Your task to perform on an android device: turn off sleep mode Image 0: 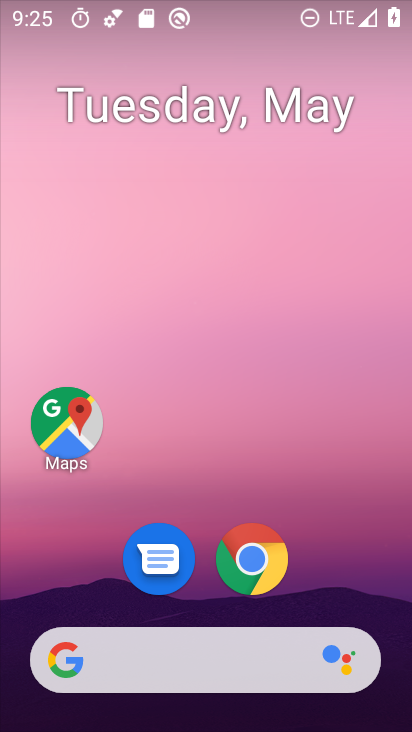
Step 0: drag from (377, 614) to (355, 67)
Your task to perform on an android device: turn off sleep mode Image 1: 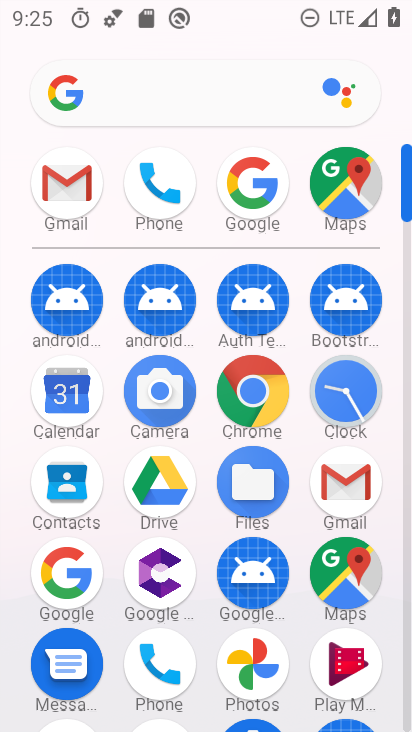
Step 1: drag from (204, 661) to (228, 124)
Your task to perform on an android device: turn off sleep mode Image 2: 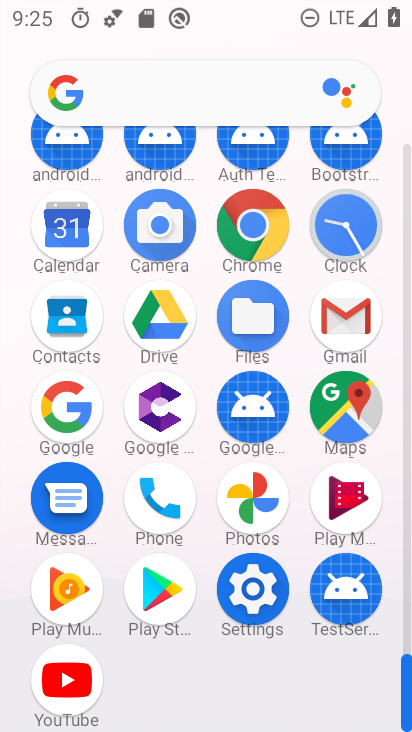
Step 2: click (257, 607)
Your task to perform on an android device: turn off sleep mode Image 3: 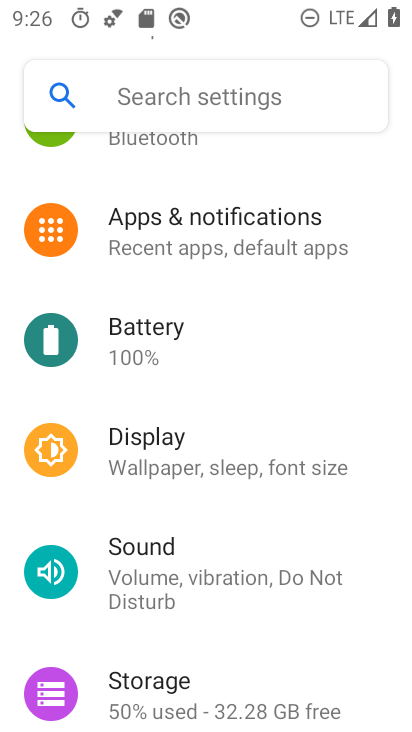
Step 3: task complete